Your task to perform on an android device: change the clock display to analog Image 0: 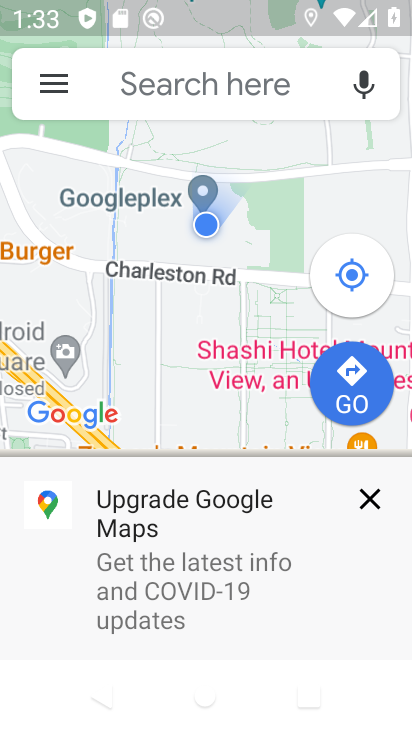
Step 0: press home button
Your task to perform on an android device: change the clock display to analog Image 1: 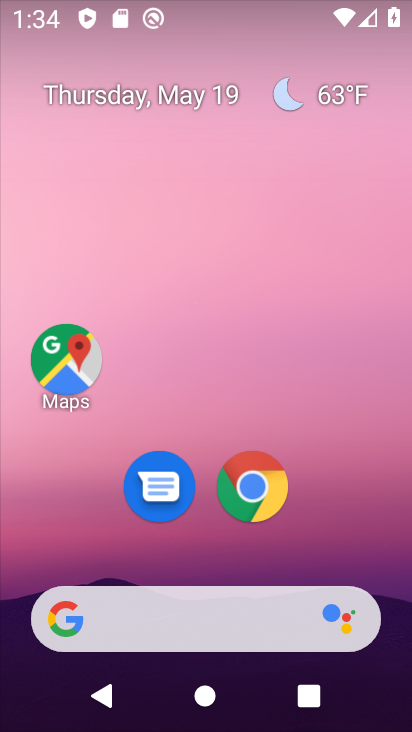
Step 1: drag from (327, 349) to (210, 0)
Your task to perform on an android device: change the clock display to analog Image 2: 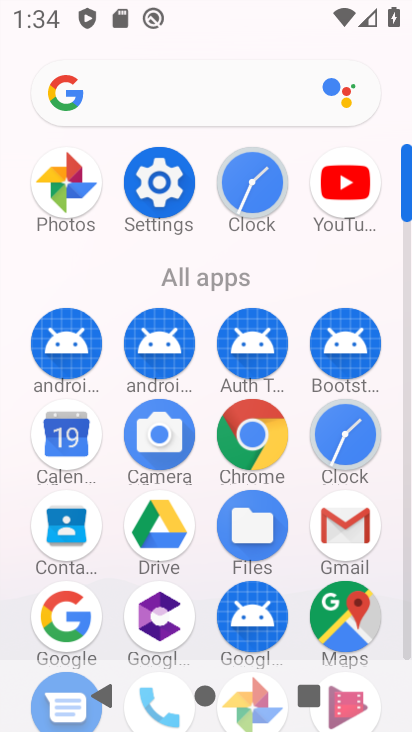
Step 2: click (347, 421)
Your task to perform on an android device: change the clock display to analog Image 3: 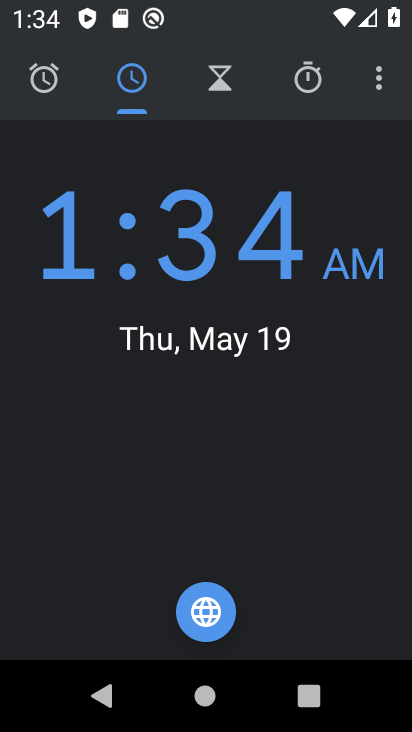
Step 3: click (383, 68)
Your task to perform on an android device: change the clock display to analog Image 4: 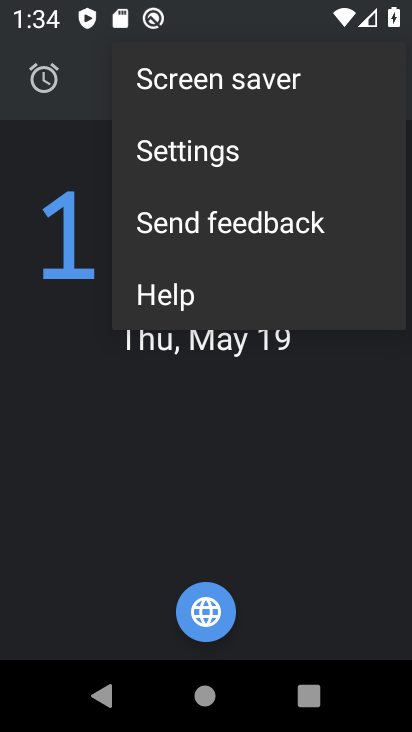
Step 4: click (309, 136)
Your task to perform on an android device: change the clock display to analog Image 5: 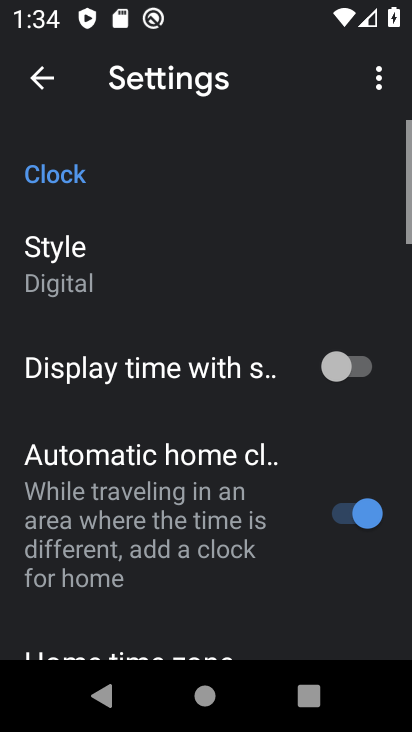
Step 5: click (128, 263)
Your task to perform on an android device: change the clock display to analog Image 6: 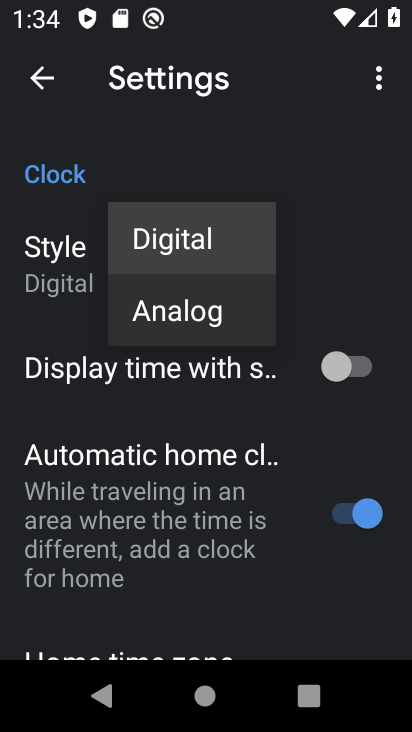
Step 6: click (196, 314)
Your task to perform on an android device: change the clock display to analog Image 7: 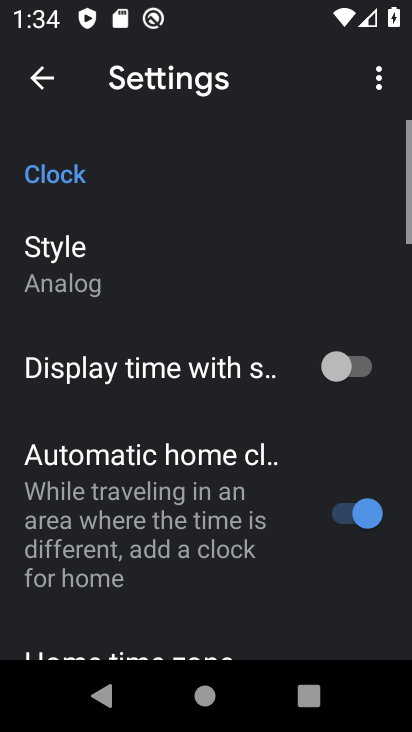
Step 7: task complete